Your task to perform on an android device: Check the weather Image 0: 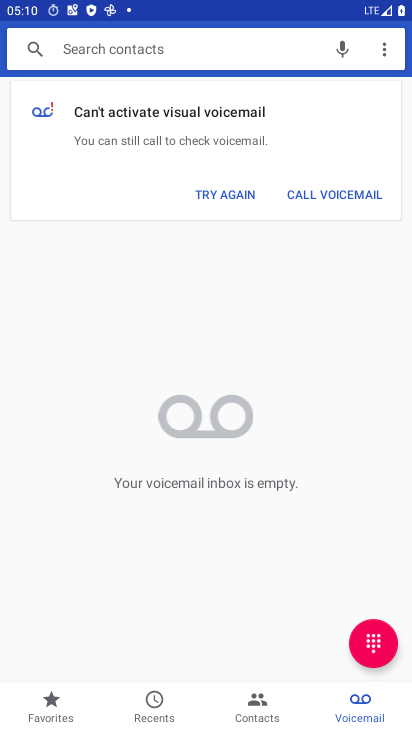
Step 0: press home button
Your task to perform on an android device: Check the weather Image 1: 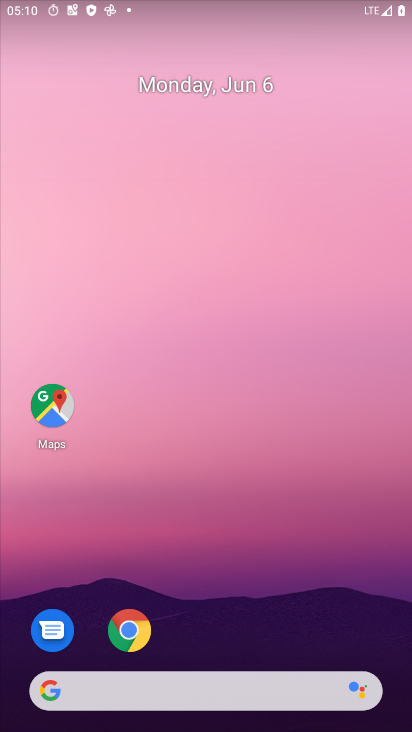
Step 1: drag from (184, 654) to (160, 220)
Your task to perform on an android device: Check the weather Image 2: 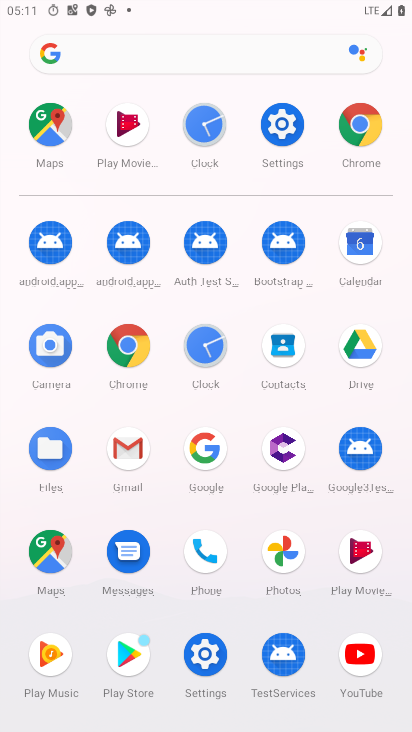
Step 2: click (124, 339)
Your task to perform on an android device: Check the weather Image 3: 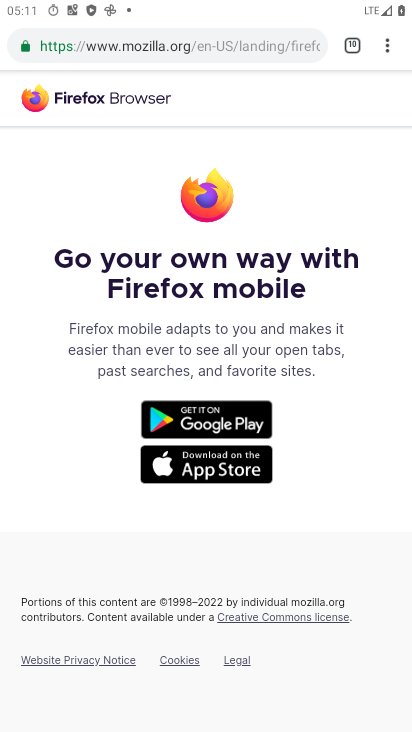
Step 3: click (241, 39)
Your task to perform on an android device: Check the weather Image 4: 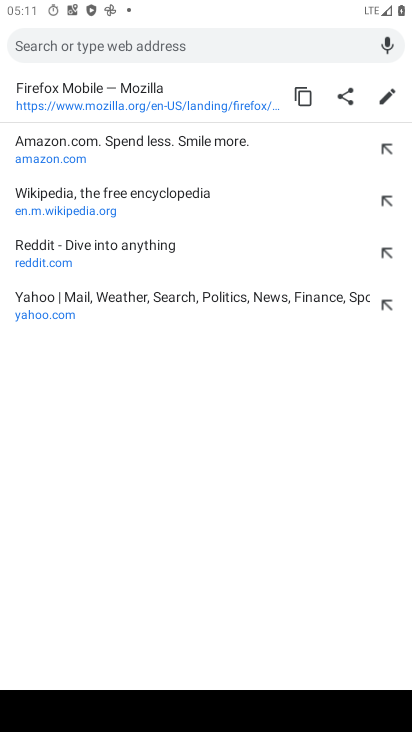
Step 4: type "Check the weather"
Your task to perform on an android device: Check the weather Image 5: 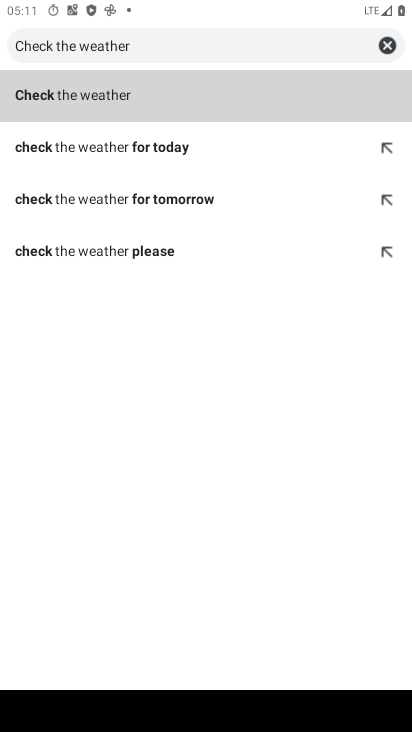
Step 5: click (73, 95)
Your task to perform on an android device: Check the weather Image 6: 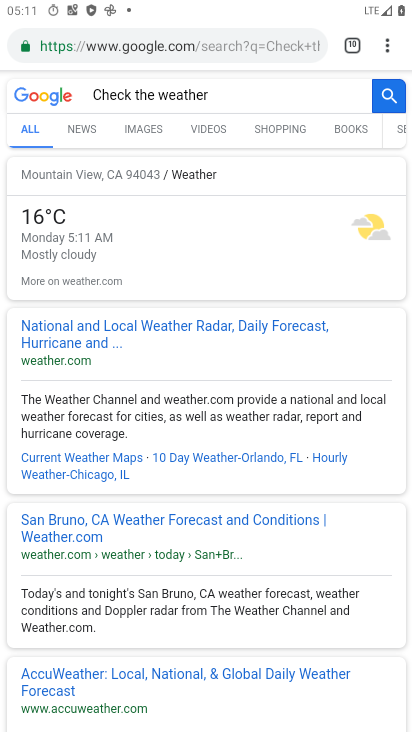
Step 6: task complete